Your task to perform on an android device: turn vacation reply on in the gmail app Image 0: 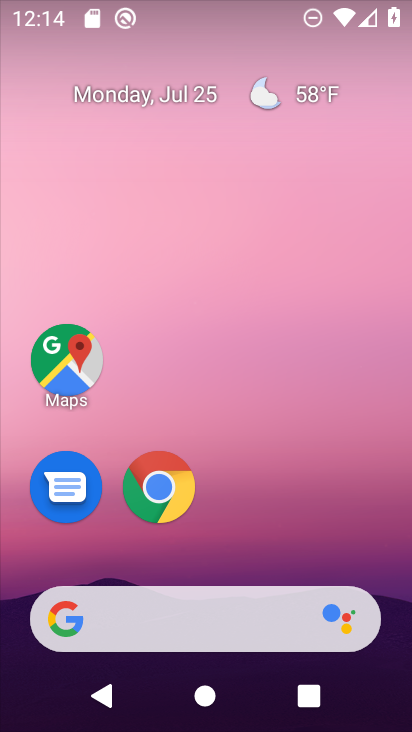
Step 0: drag from (216, 496) to (347, 19)
Your task to perform on an android device: turn vacation reply on in the gmail app Image 1: 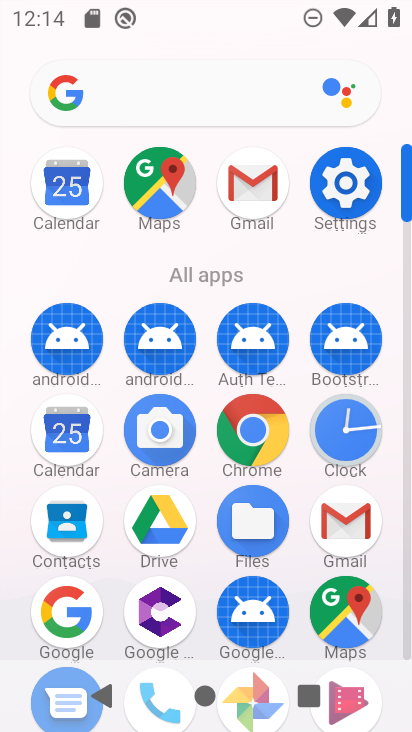
Step 1: click (249, 189)
Your task to perform on an android device: turn vacation reply on in the gmail app Image 2: 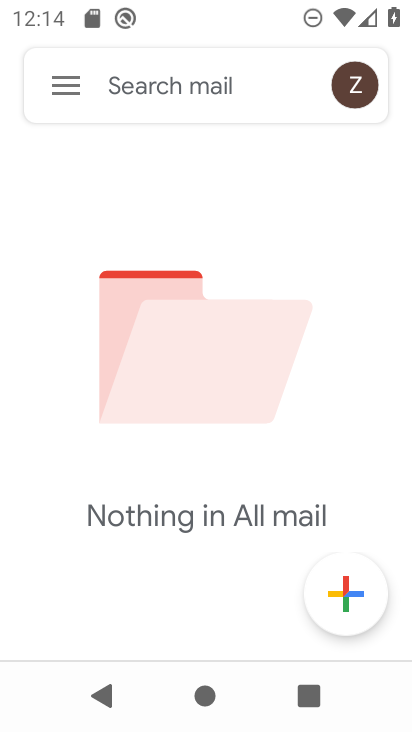
Step 2: click (74, 84)
Your task to perform on an android device: turn vacation reply on in the gmail app Image 3: 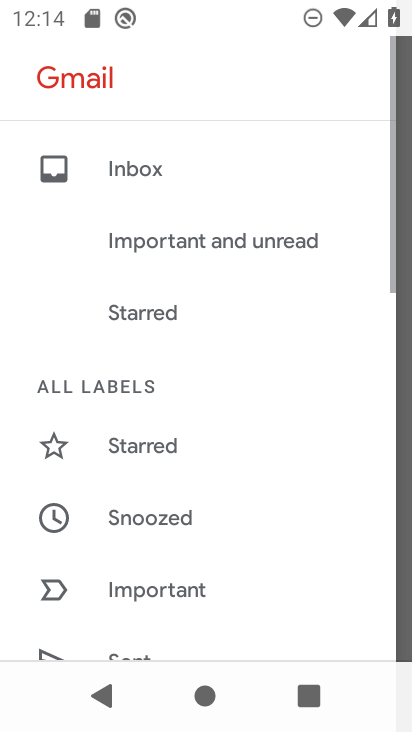
Step 3: drag from (130, 613) to (249, 123)
Your task to perform on an android device: turn vacation reply on in the gmail app Image 4: 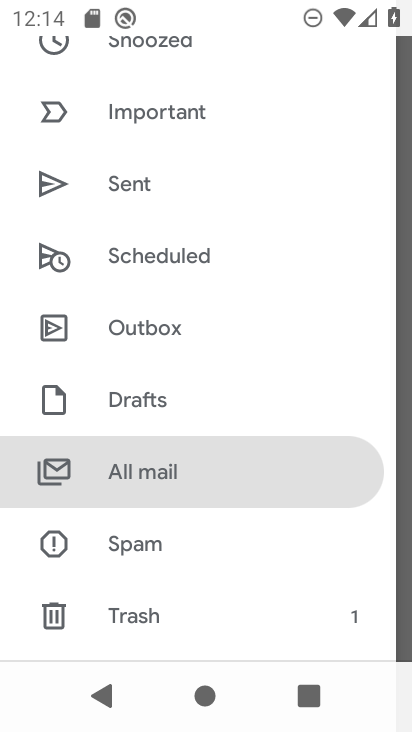
Step 4: drag from (161, 579) to (248, 157)
Your task to perform on an android device: turn vacation reply on in the gmail app Image 5: 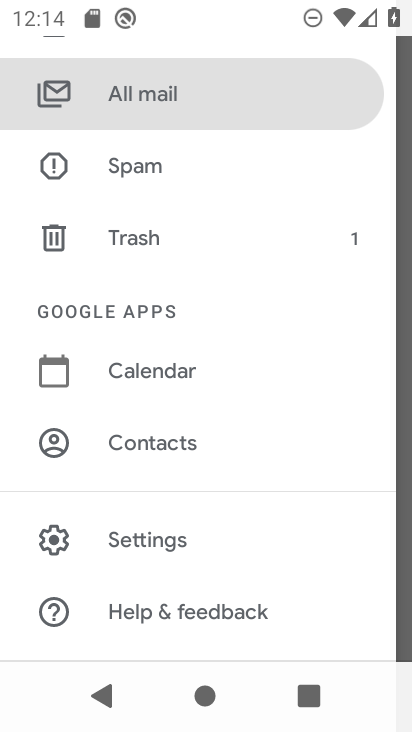
Step 5: click (149, 546)
Your task to perform on an android device: turn vacation reply on in the gmail app Image 6: 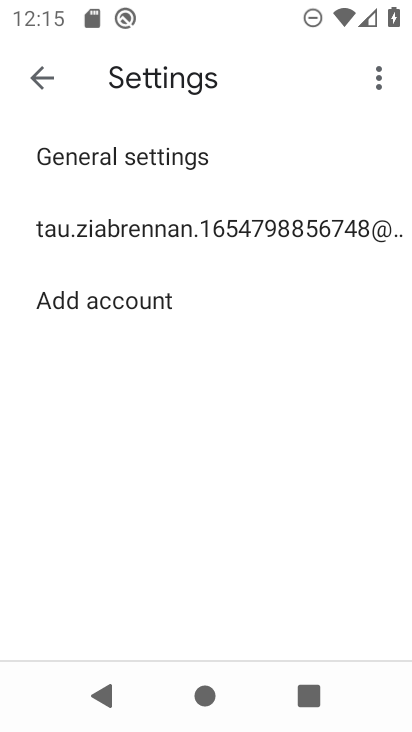
Step 6: click (208, 229)
Your task to perform on an android device: turn vacation reply on in the gmail app Image 7: 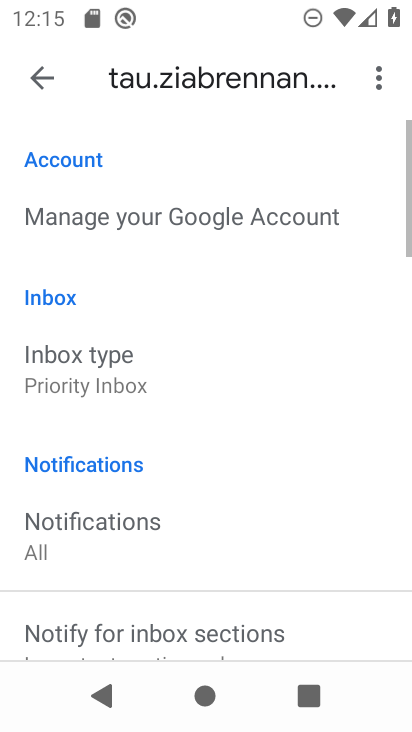
Step 7: drag from (157, 591) to (239, 67)
Your task to perform on an android device: turn vacation reply on in the gmail app Image 8: 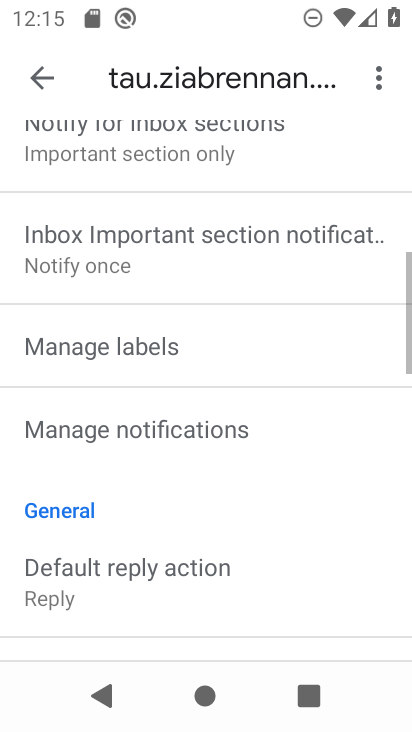
Step 8: drag from (126, 606) to (243, 84)
Your task to perform on an android device: turn vacation reply on in the gmail app Image 9: 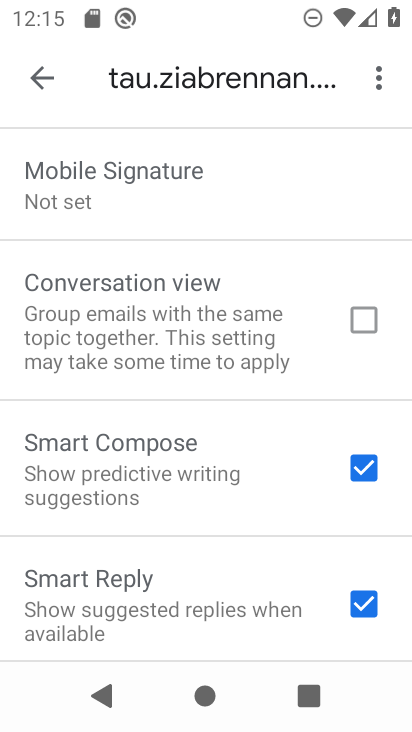
Step 9: drag from (204, 581) to (303, 75)
Your task to perform on an android device: turn vacation reply on in the gmail app Image 10: 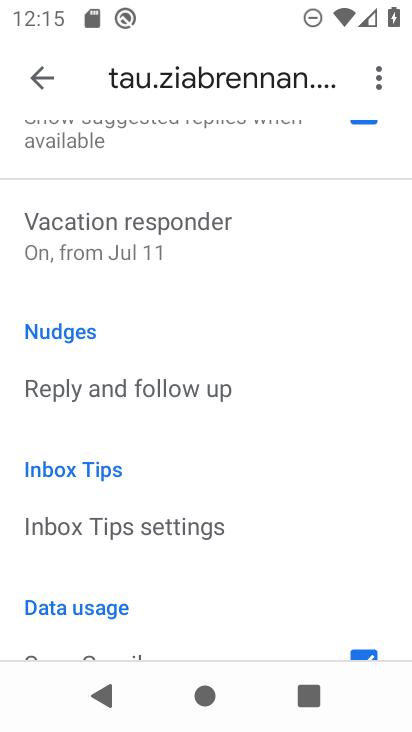
Step 10: click (102, 238)
Your task to perform on an android device: turn vacation reply on in the gmail app Image 11: 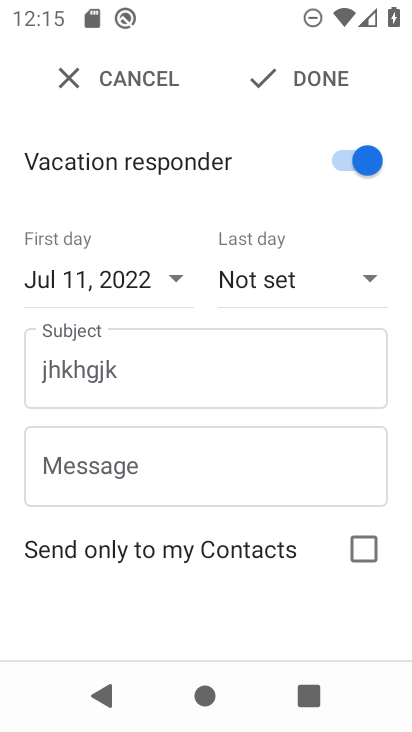
Step 11: task complete